Your task to perform on an android device: Open notification settings Image 0: 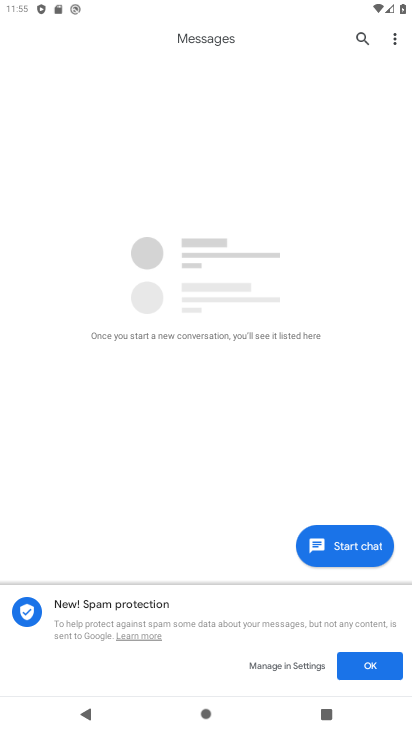
Step 0: press home button
Your task to perform on an android device: Open notification settings Image 1: 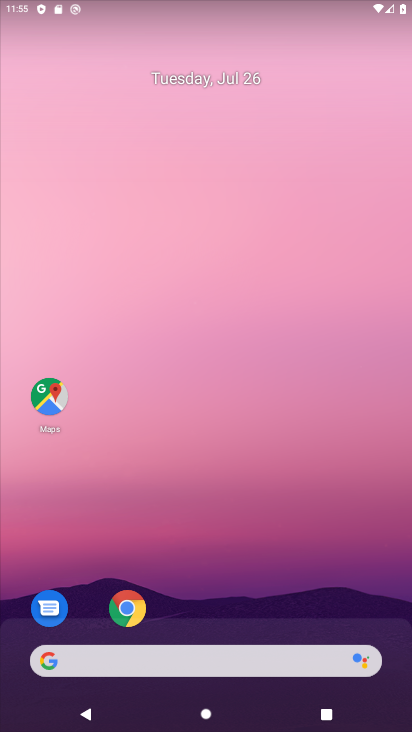
Step 1: drag from (354, 608) to (340, 118)
Your task to perform on an android device: Open notification settings Image 2: 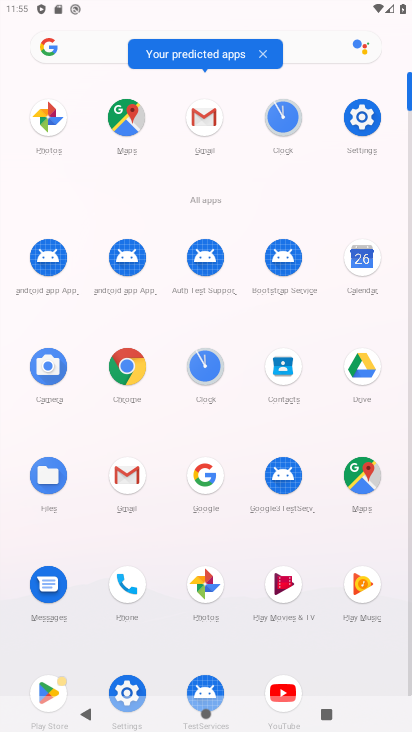
Step 2: click (362, 123)
Your task to perform on an android device: Open notification settings Image 3: 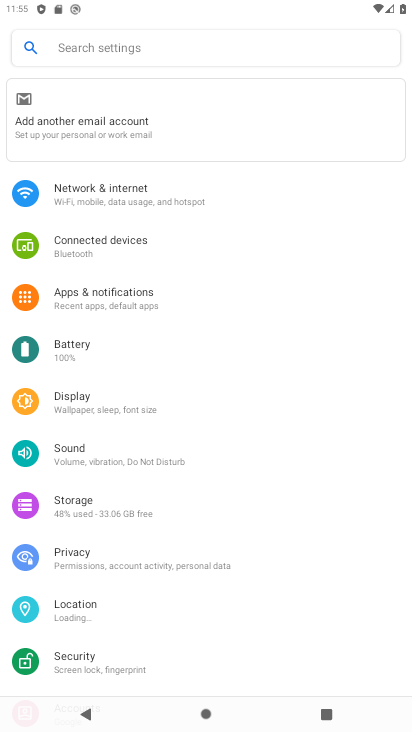
Step 3: drag from (327, 530) to (316, 408)
Your task to perform on an android device: Open notification settings Image 4: 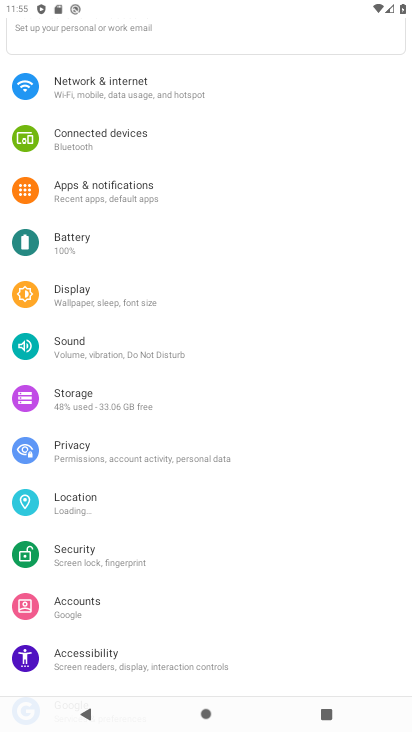
Step 4: drag from (317, 556) to (319, 369)
Your task to perform on an android device: Open notification settings Image 5: 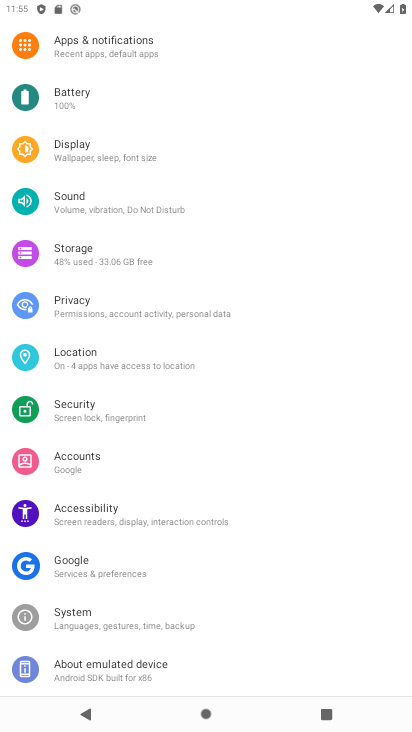
Step 5: drag from (289, 378) to (293, 433)
Your task to perform on an android device: Open notification settings Image 6: 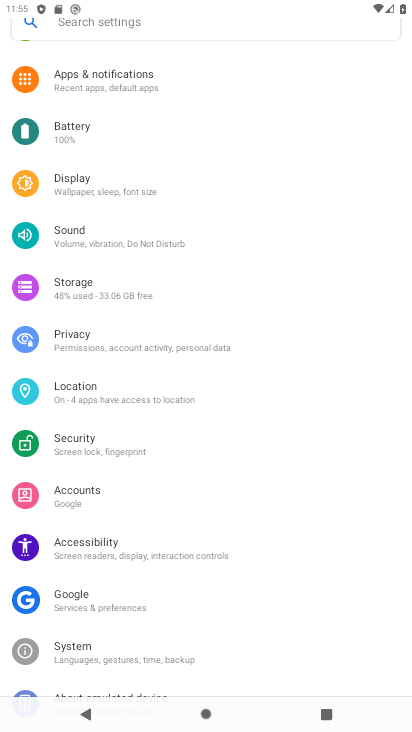
Step 6: drag from (310, 245) to (310, 368)
Your task to perform on an android device: Open notification settings Image 7: 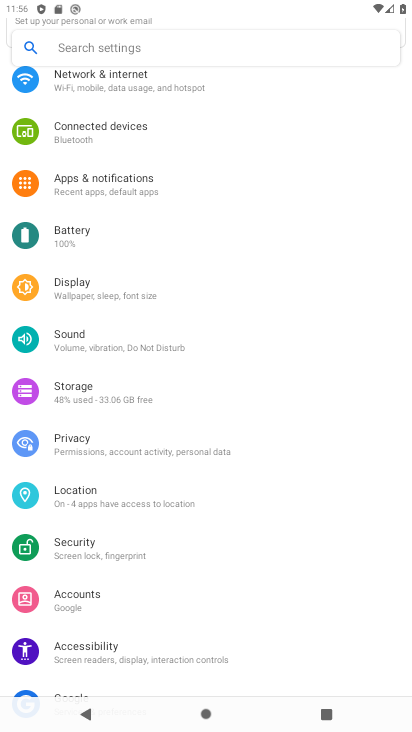
Step 7: drag from (301, 206) to (292, 344)
Your task to perform on an android device: Open notification settings Image 8: 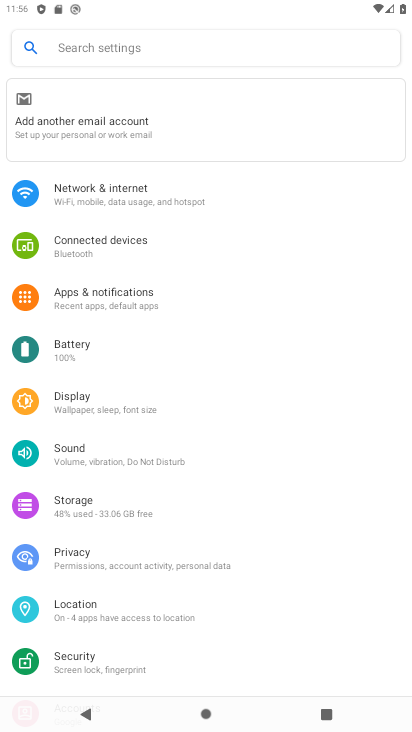
Step 8: click (173, 298)
Your task to perform on an android device: Open notification settings Image 9: 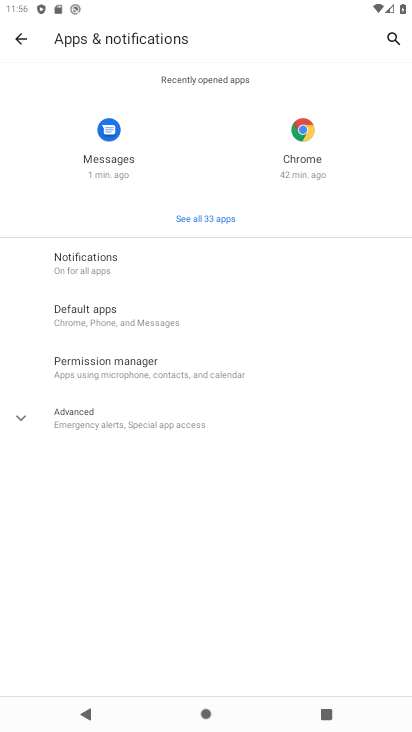
Step 9: click (150, 263)
Your task to perform on an android device: Open notification settings Image 10: 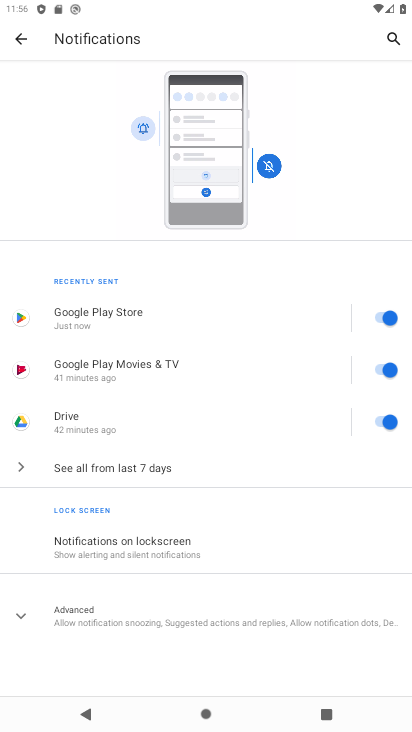
Step 10: task complete